Your task to perform on an android device: turn notification dots off Image 0: 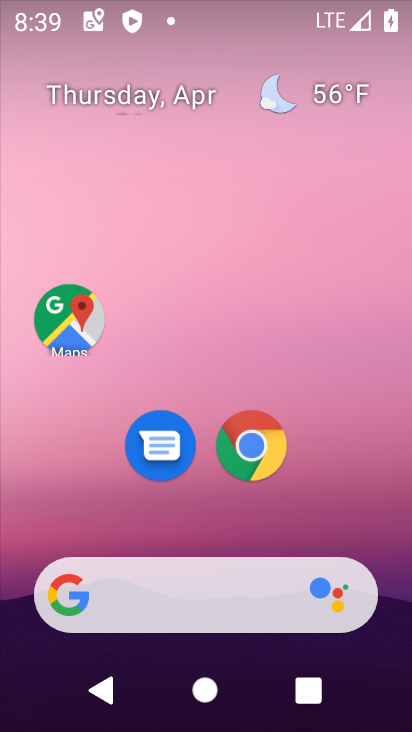
Step 0: drag from (377, 533) to (320, 21)
Your task to perform on an android device: turn notification dots off Image 1: 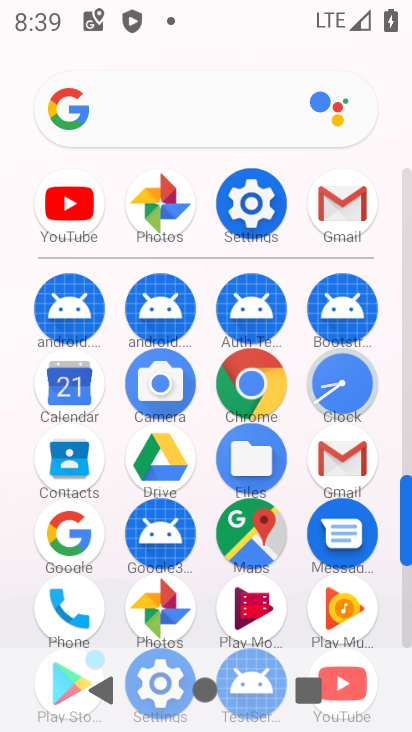
Step 1: click (256, 211)
Your task to perform on an android device: turn notification dots off Image 2: 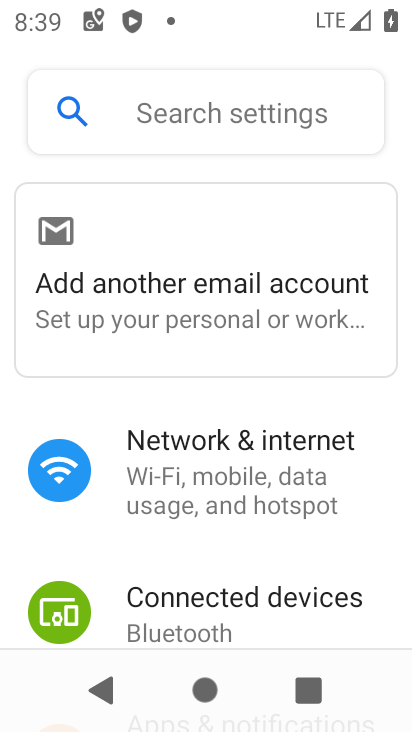
Step 2: drag from (374, 591) to (366, 151)
Your task to perform on an android device: turn notification dots off Image 3: 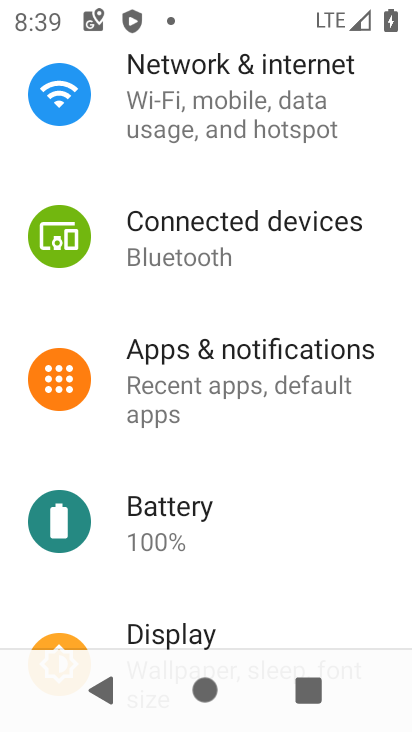
Step 3: click (238, 370)
Your task to perform on an android device: turn notification dots off Image 4: 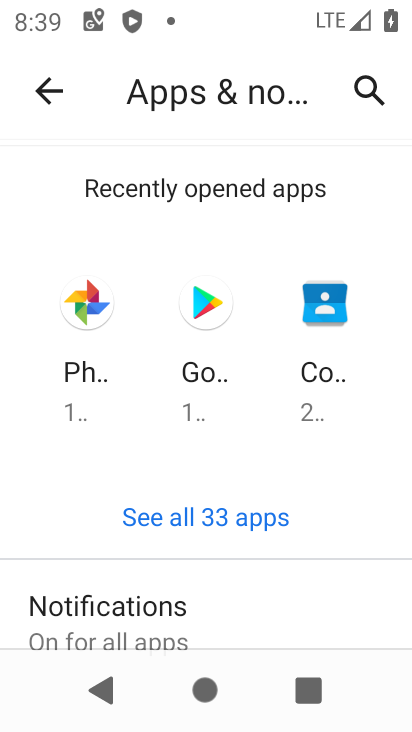
Step 4: drag from (300, 581) to (256, 140)
Your task to perform on an android device: turn notification dots off Image 5: 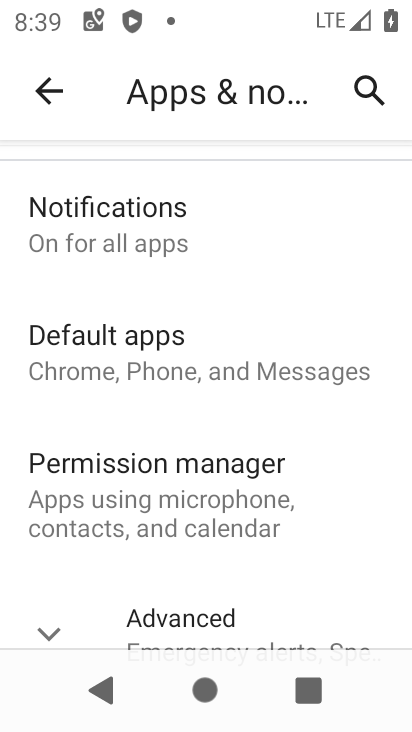
Step 5: click (114, 243)
Your task to perform on an android device: turn notification dots off Image 6: 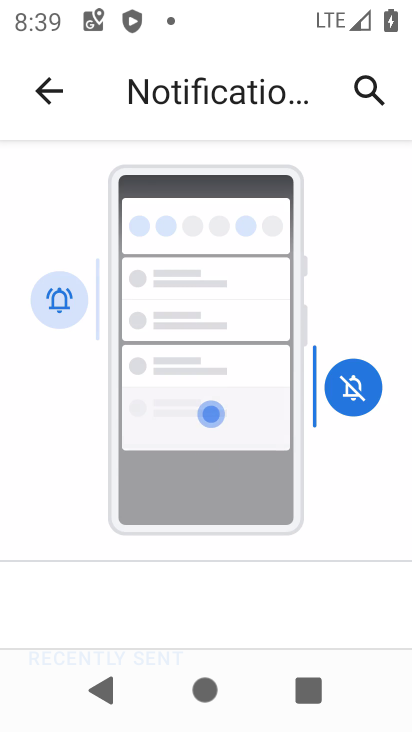
Step 6: drag from (274, 573) to (251, 69)
Your task to perform on an android device: turn notification dots off Image 7: 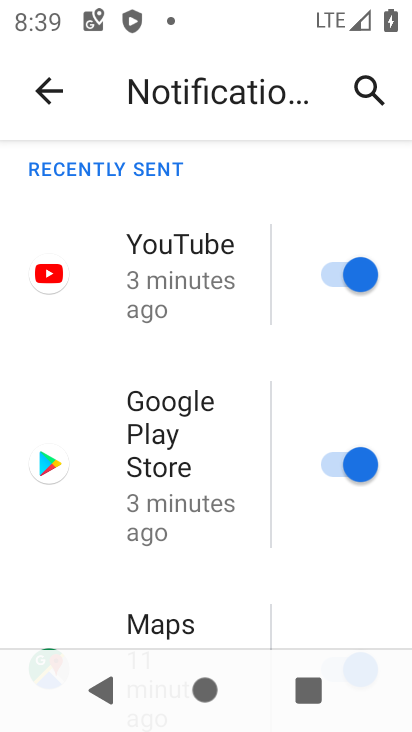
Step 7: drag from (251, 424) to (224, 80)
Your task to perform on an android device: turn notification dots off Image 8: 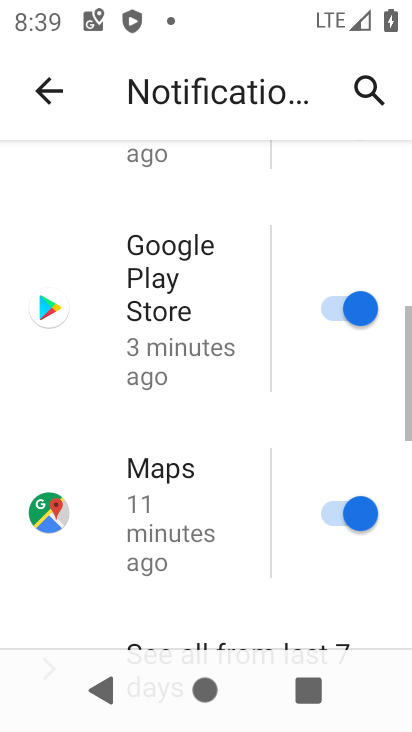
Step 8: drag from (172, 496) to (161, 75)
Your task to perform on an android device: turn notification dots off Image 9: 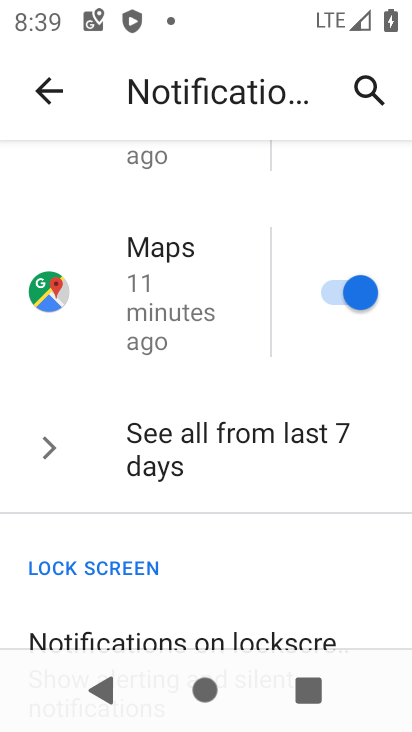
Step 9: drag from (200, 572) to (192, 74)
Your task to perform on an android device: turn notification dots off Image 10: 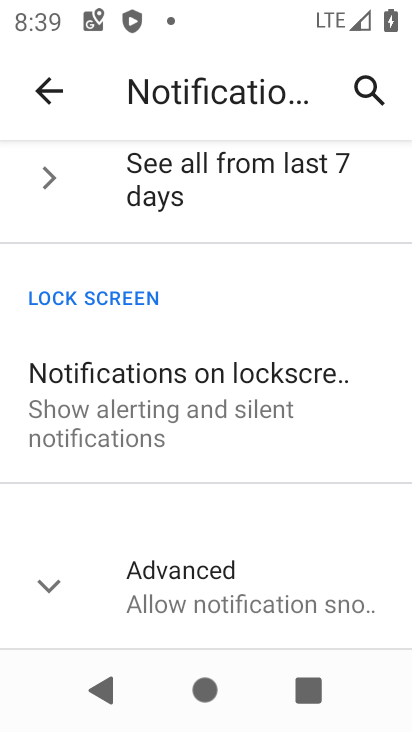
Step 10: click (49, 597)
Your task to perform on an android device: turn notification dots off Image 11: 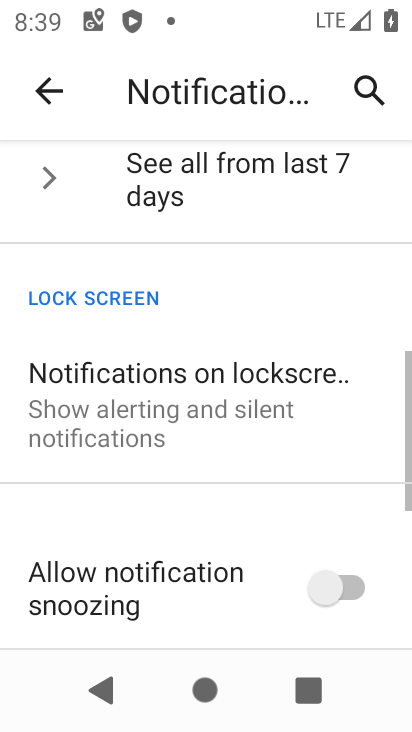
Step 11: drag from (182, 584) to (186, 113)
Your task to perform on an android device: turn notification dots off Image 12: 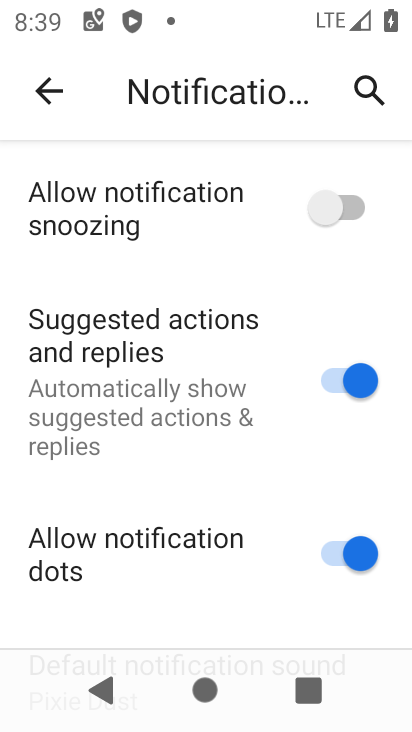
Step 12: click (345, 560)
Your task to perform on an android device: turn notification dots off Image 13: 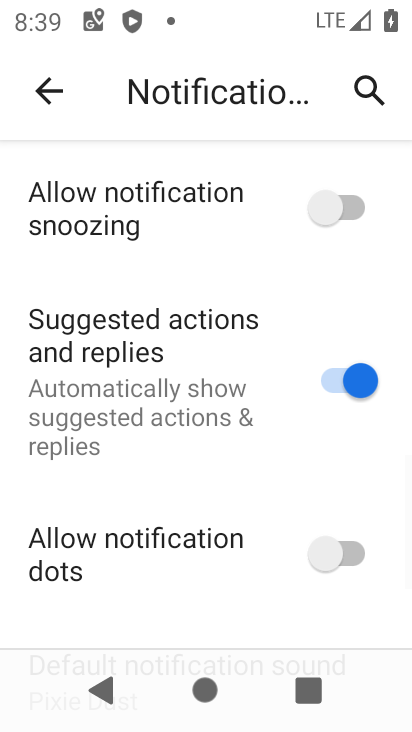
Step 13: task complete